Your task to perform on an android device: Show me the alarms in the clock app Image 0: 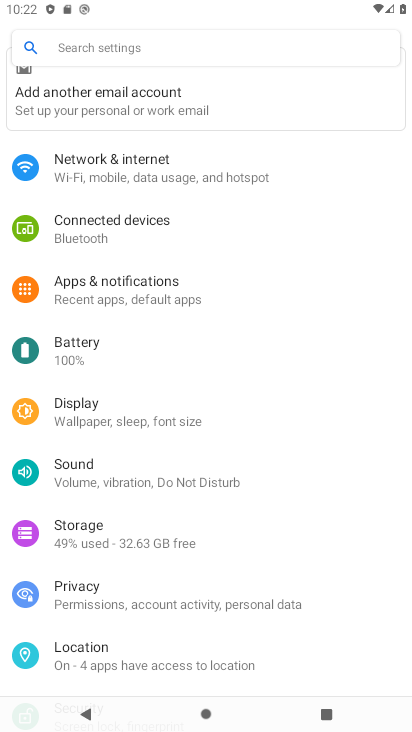
Step 0: press home button
Your task to perform on an android device: Show me the alarms in the clock app Image 1: 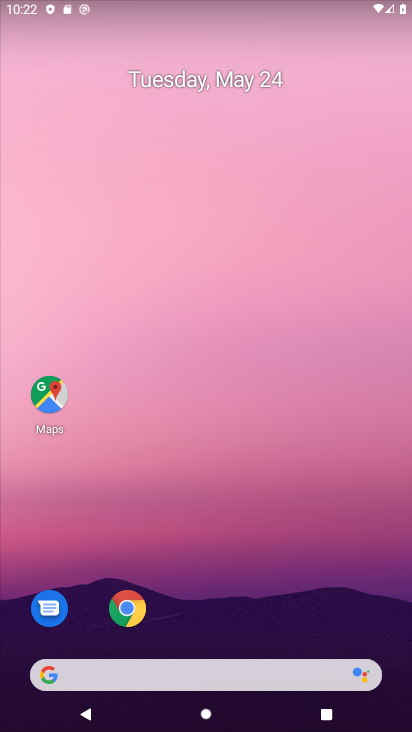
Step 1: drag from (392, 637) to (336, 88)
Your task to perform on an android device: Show me the alarms in the clock app Image 2: 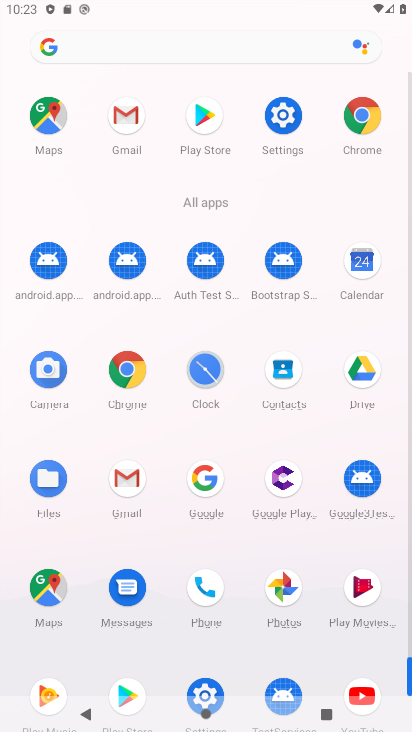
Step 2: click (206, 372)
Your task to perform on an android device: Show me the alarms in the clock app Image 3: 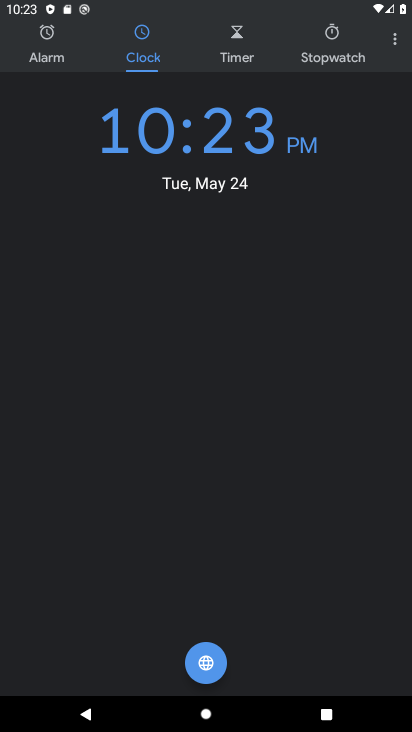
Step 3: click (46, 47)
Your task to perform on an android device: Show me the alarms in the clock app Image 4: 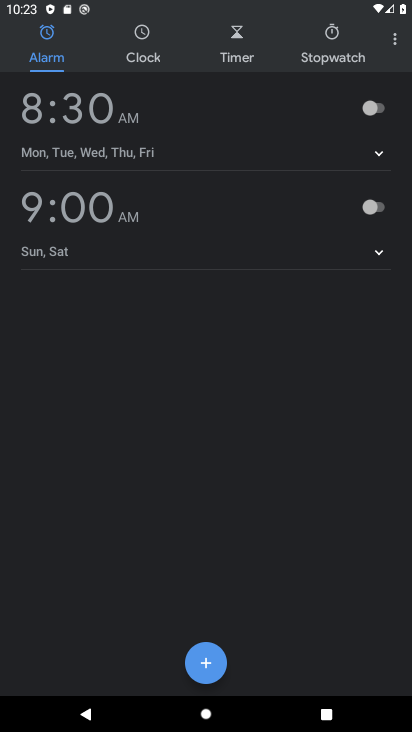
Step 4: task complete